Your task to perform on an android device: Search for a dining table on Crate & Barrel Image 0: 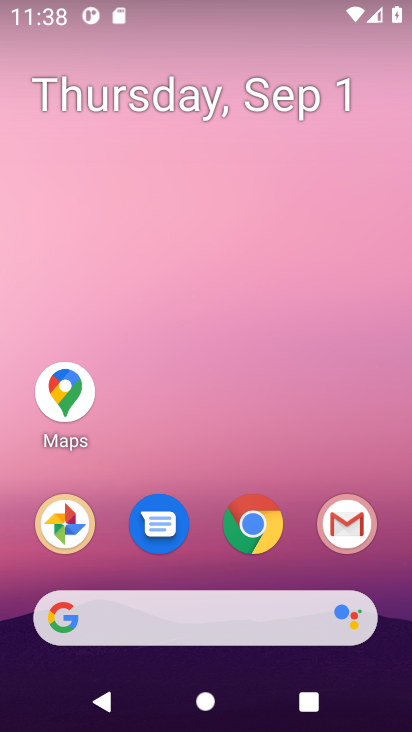
Step 0: click (239, 617)
Your task to perform on an android device: Search for a dining table on Crate & Barrel Image 1: 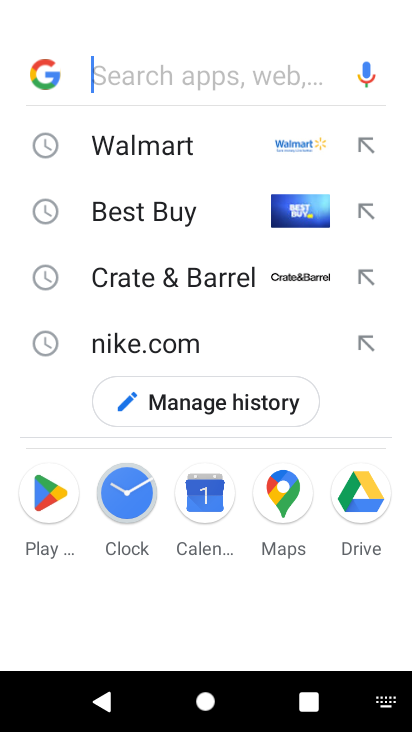
Step 1: click (216, 275)
Your task to perform on an android device: Search for a dining table on Crate & Barrel Image 2: 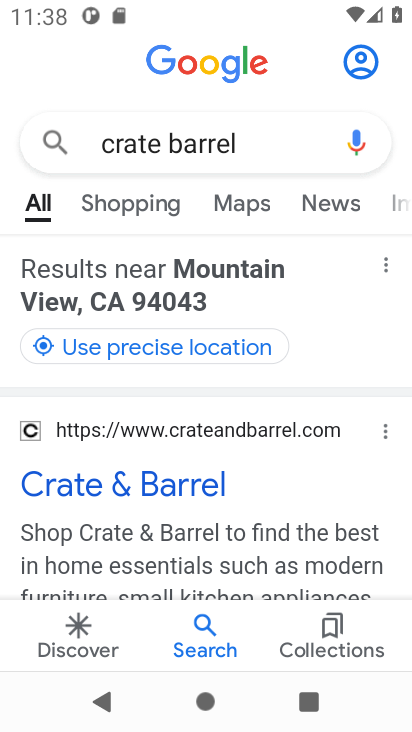
Step 2: click (188, 486)
Your task to perform on an android device: Search for a dining table on Crate & Barrel Image 3: 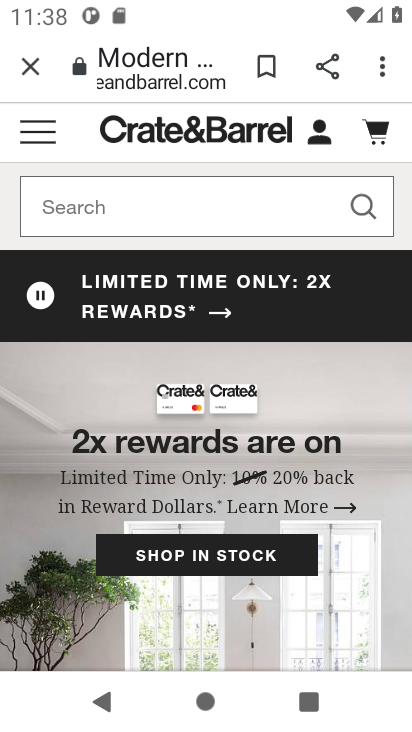
Step 3: click (224, 205)
Your task to perform on an android device: Search for a dining table on Crate & Barrel Image 4: 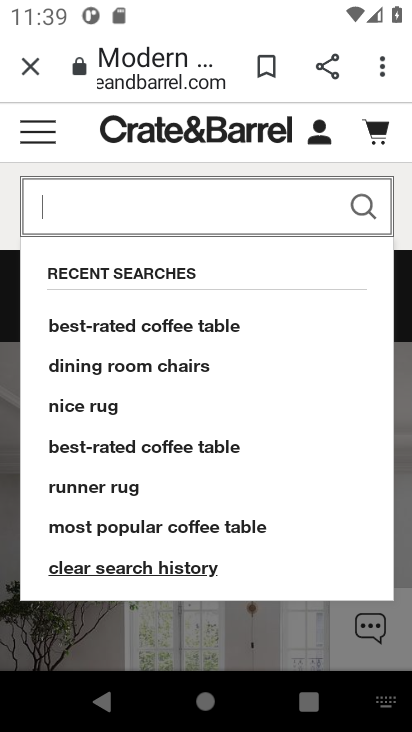
Step 4: press enter
Your task to perform on an android device: Search for a dining table on Crate & Barrel Image 5: 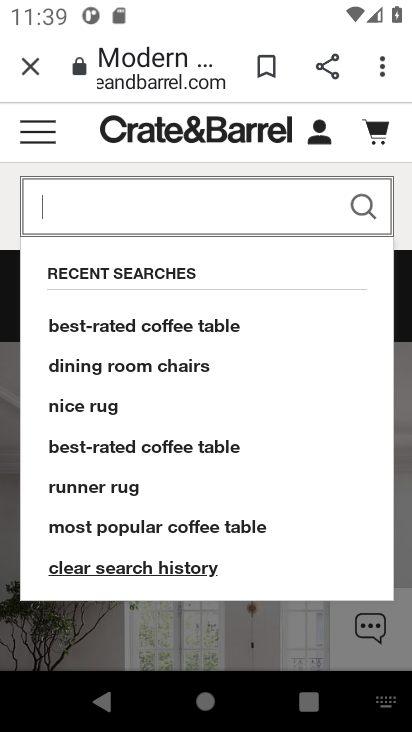
Step 5: type "dining table"
Your task to perform on an android device: Search for a dining table on Crate & Barrel Image 6: 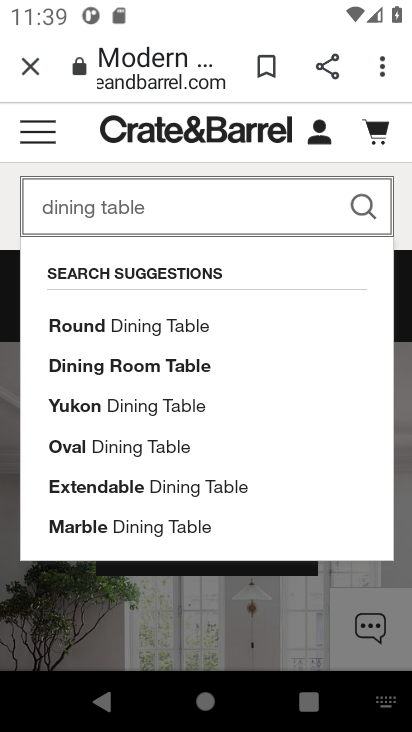
Step 6: click (365, 215)
Your task to perform on an android device: Search for a dining table on Crate & Barrel Image 7: 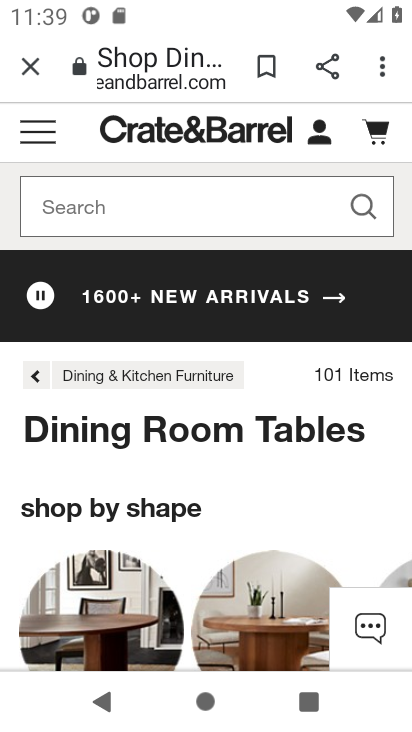
Step 7: task complete